Your task to perform on an android device: change notifications settings Image 0: 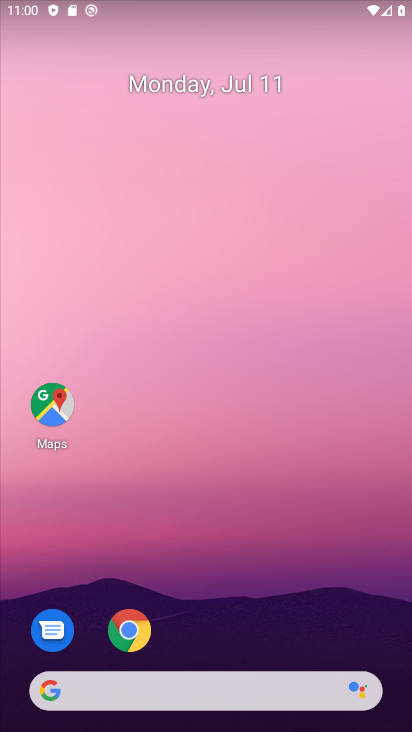
Step 0: drag from (221, 652) to (194, 88)
Your task to perform on an android device: change notifications settings Image 1: 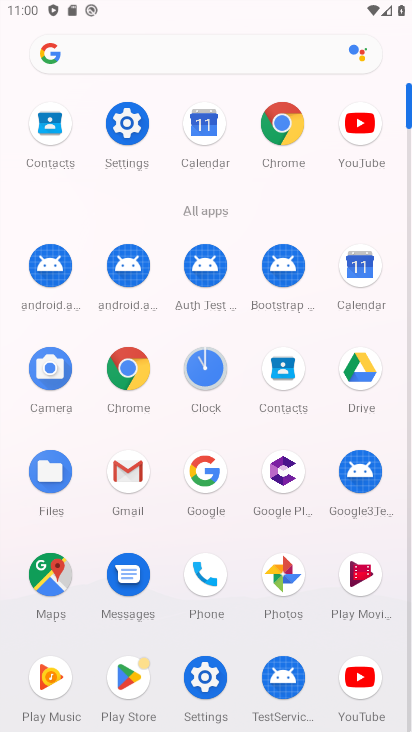
Step 1: click (209, 672)
Your task to perform on an android device: change notifications settings Image 2: 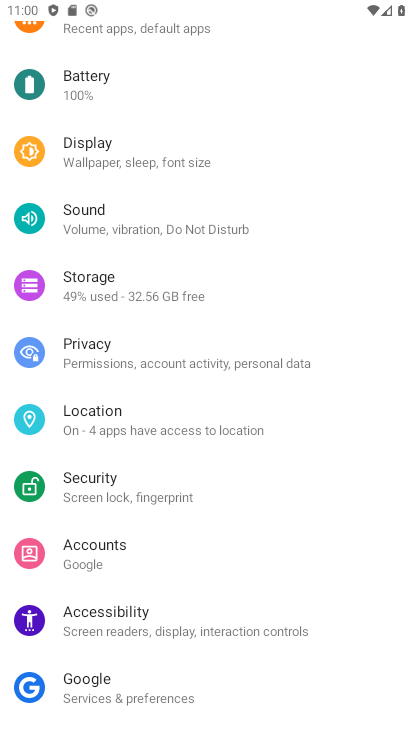
Step 2: drag from (141, 157) to (125, 690)
Your task to perform on an android device: change notifications settings Image 3: 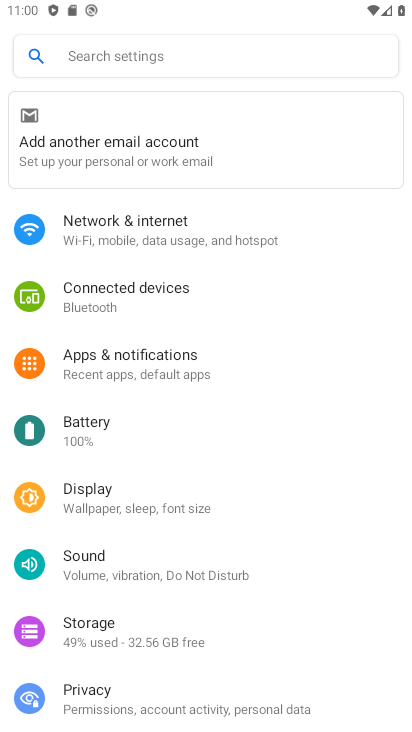
Step 3: click (151, 354)
Your task to perform on an android device: change notifications settings Image 4: 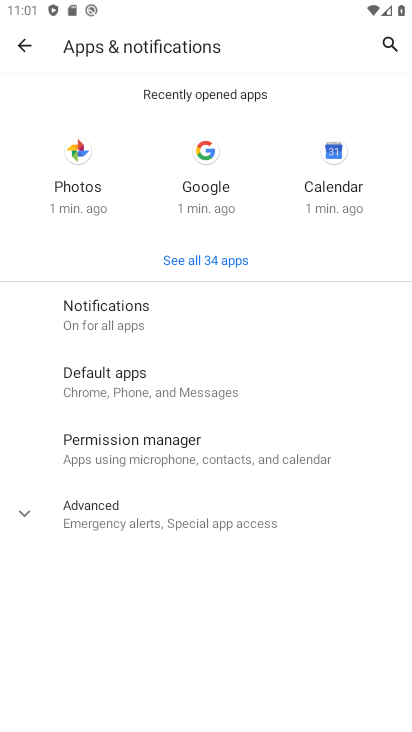
Step 4: click (114, 307)
Your task to perform on an android device: change notifications settings Image 5: 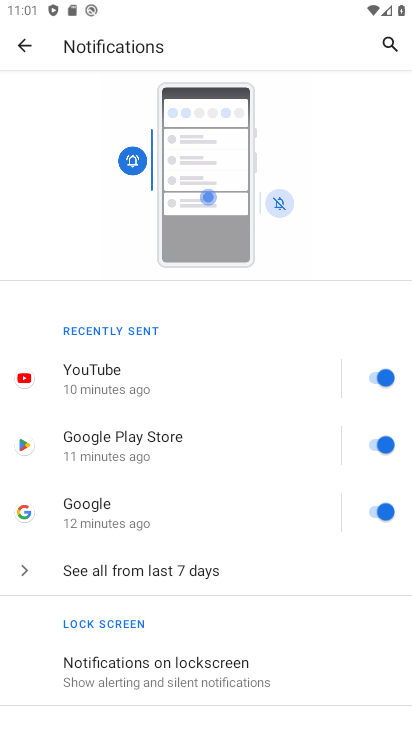
Step 5: click (150, 566)
Your task to perform on an android device: change notifications settings Image 6: 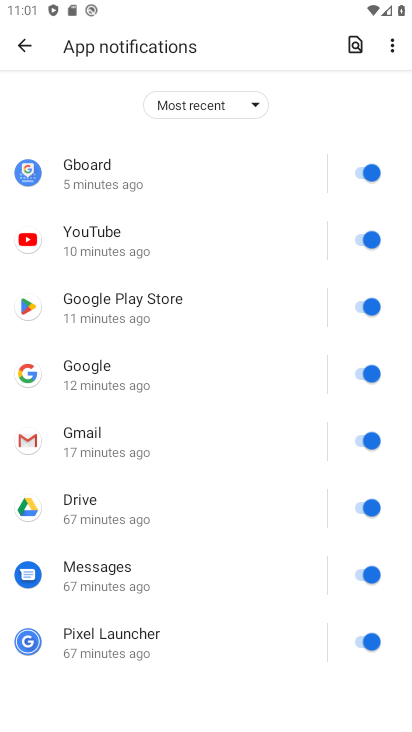
Step 6: click (347, 169)
Your task to perform on an android device: change notifications settings Image 7: 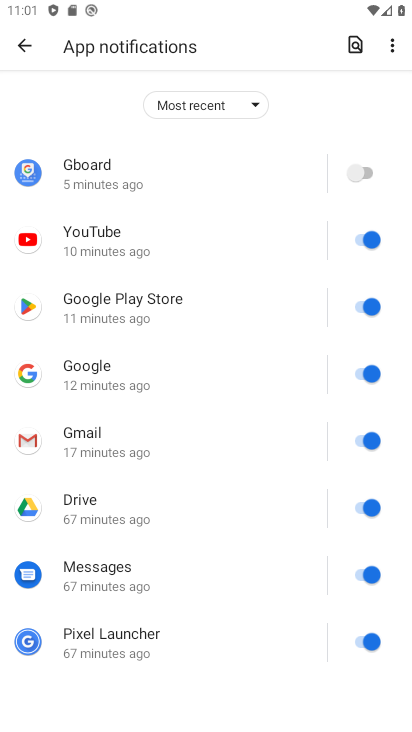
Step 7: click (352, 229)
Your task to perform on an android device: change notifications settings Image 8: 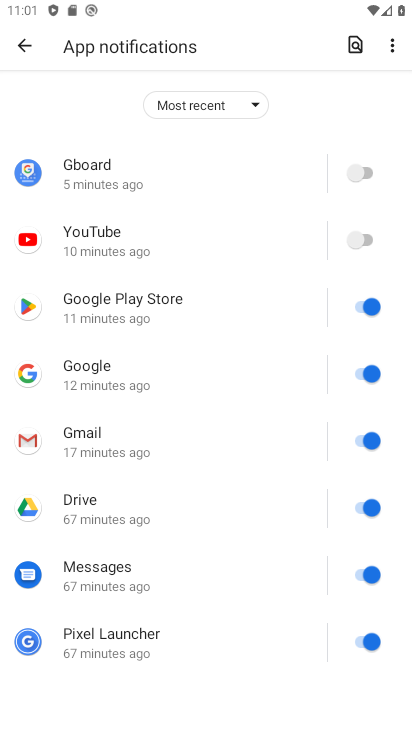
Step 8: click (370, 305)
Your task to perform on an android device: change notifications settings Image 9: 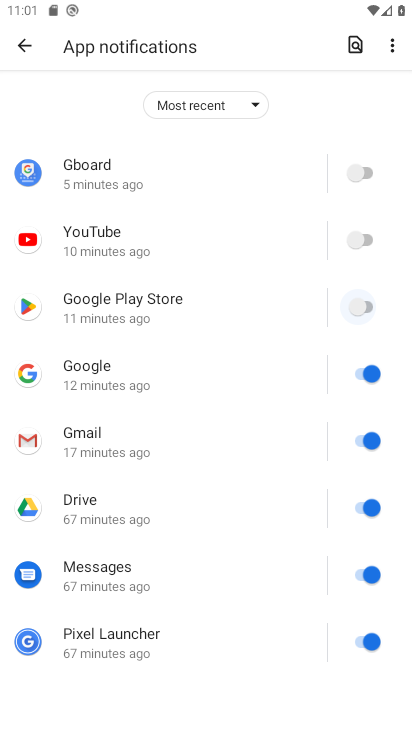
Step 9: click (361, 372)
Your task to perform on an android device: change notifications settings Image 10: 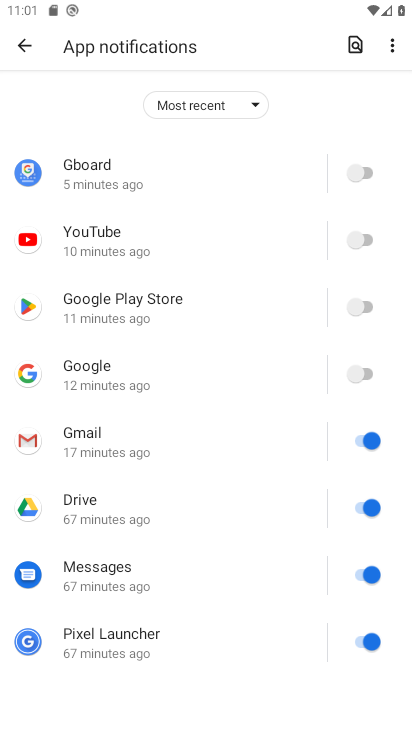
Step 10: click (359, 436)
Your task to perform on an android device: change notifications settings Image 11: 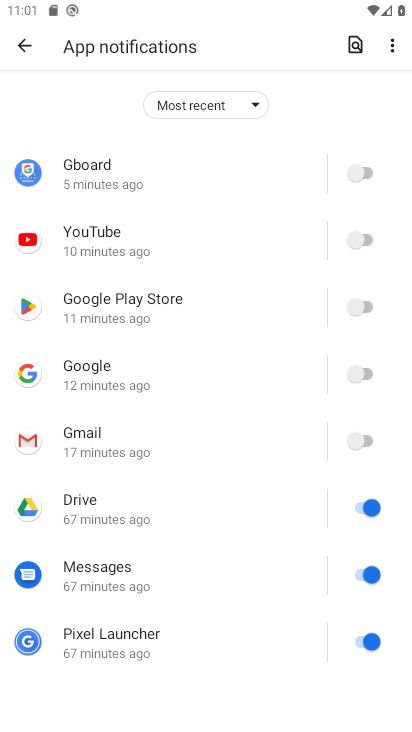
Step 11: click (358, 519)
Your task to perform on an android device: change notifications settings Image 12: 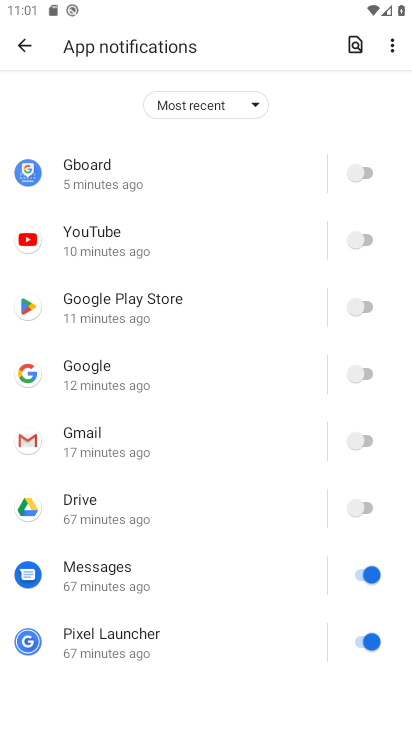
Step 12: click (358, 570)
Your task to perform on an android device: change notifications settings Image 13: 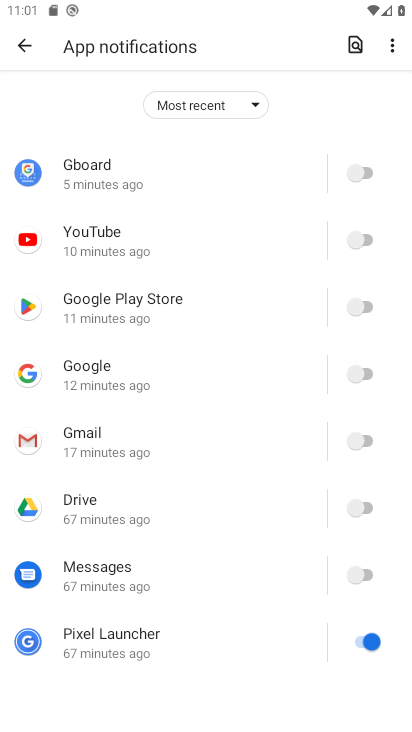
Step 13: click (353, 658)
Your task to perform on an android device: change notifications settings Image 14: 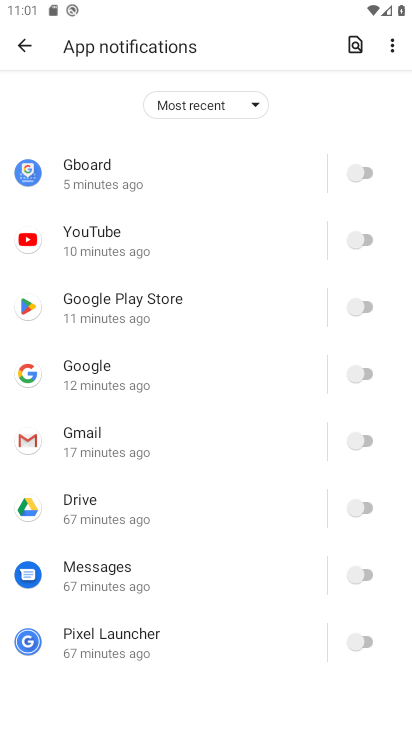
Step 14: task complete